Your task to perform on an android device: turn off improve location accuracy Image 0: 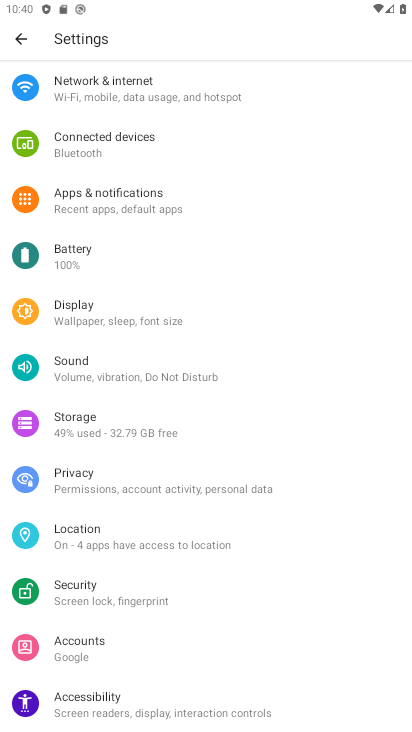
Step 0: click (97, 545)
Your task to perform on an android device: turn off improve location accuracy Image 1: 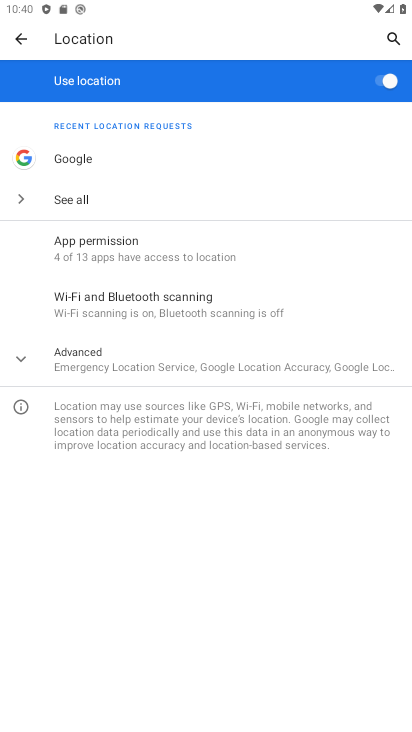
Step 1: click (94, 369)
Your task to perform on an android device: turn off improve location accuracy Image 2: 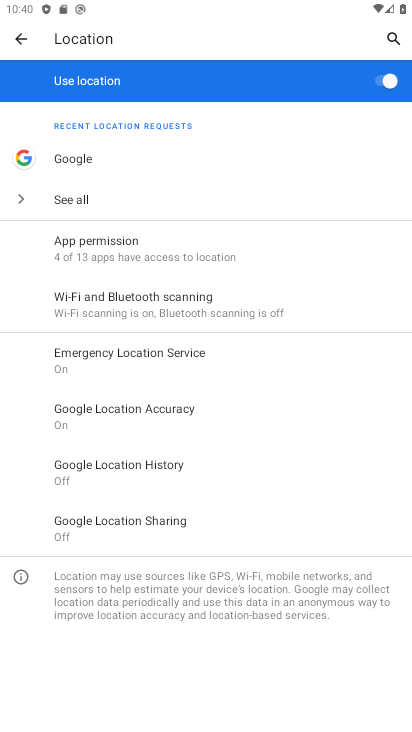
Step 2: click (180, 424)
Your task to perform on an android device: turn off improve location accuracy Image 3: 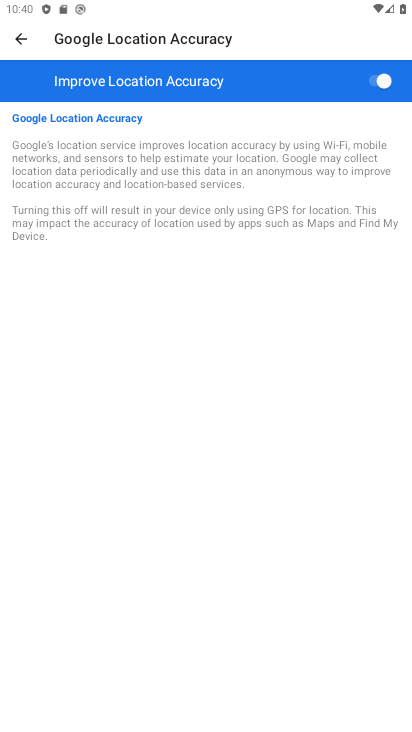
Step 3: click (377, 87)
Your task to perform on an android device: turn off improve location accuracy Image 4: 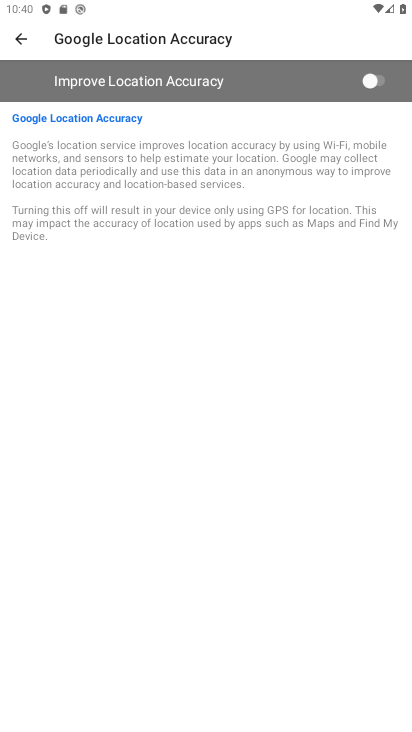
Step 4: task complete